Your task to perform on an android device: Go to Yahoo.com Image 0: 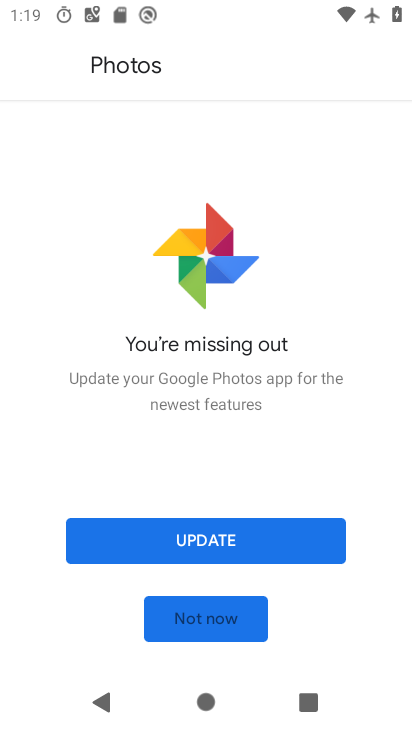
Step 0: press home button
Your task to perform on an android device: Go to Yahoo.com Image 1: 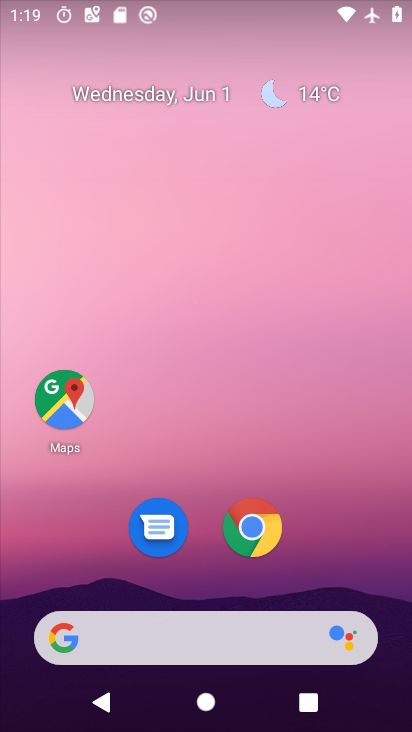
Step 1: click (254, 523)
Your task to perform on an android device: Go to Yahoo.com Image 2: 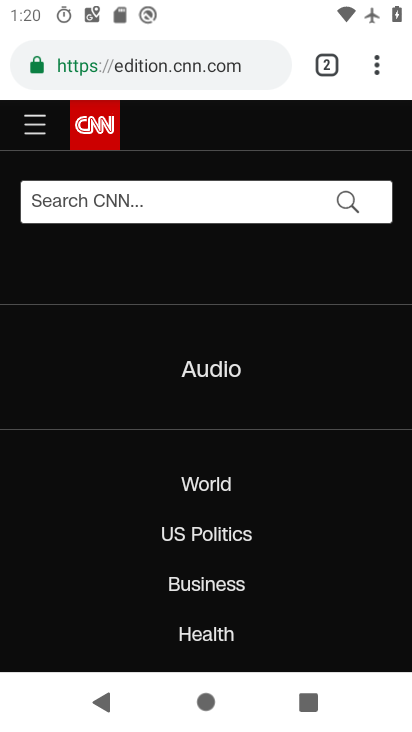
Step 2: click (126, 72)
Your task to perform on an android device: Go to Yahoo.com Image 3: 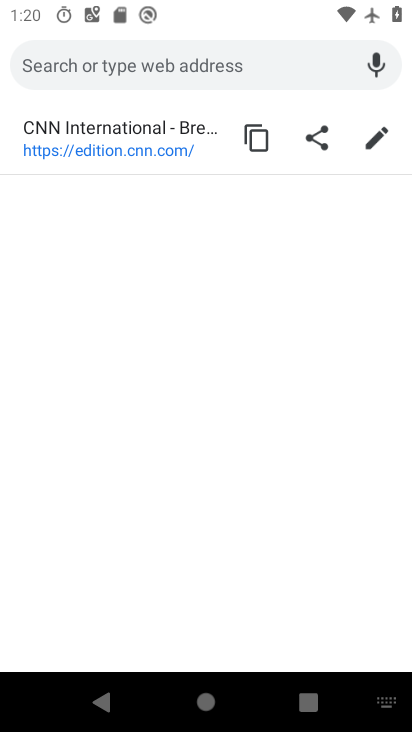
Step 3: type "yahoo.com"
Your task to perform on an android device: Go to Yahoo.com Image 4: 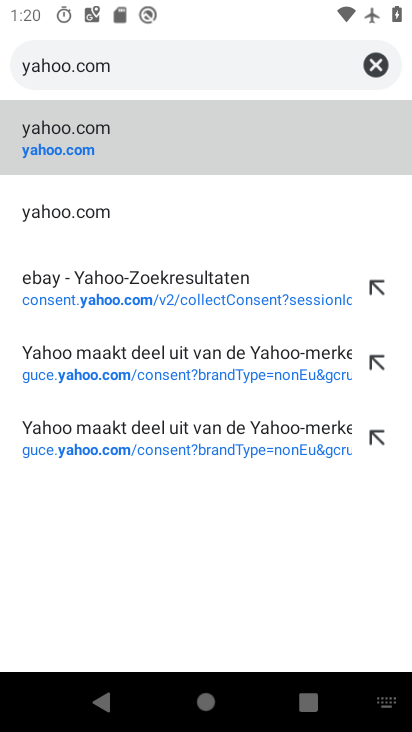
Step 4: click (51, 141)
Your task to perform on an android device: Go to Yahoo.com Image 5: 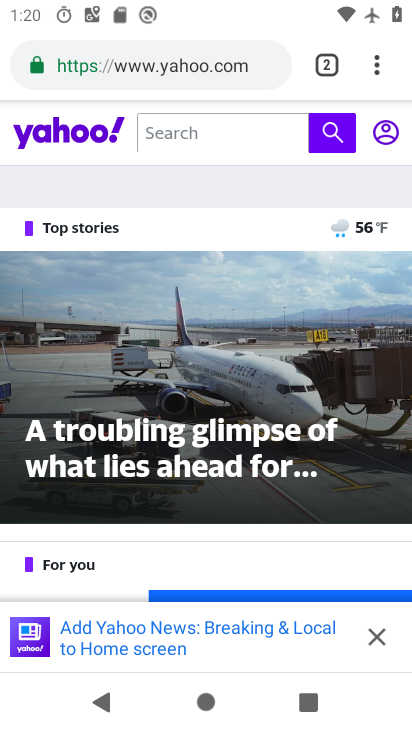
Step 5: task complete